Your task to perform on an android device: Go to settings Image 0: 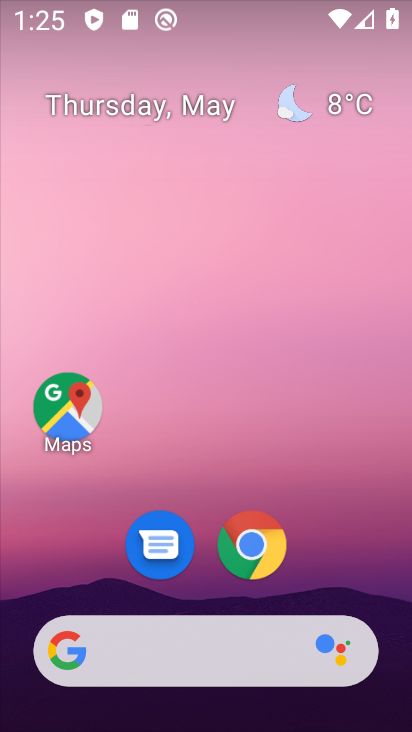
Step 0: drag from (382, 630) to (296, 159)
Your task to perform on an android device: Go to settings Image 1: 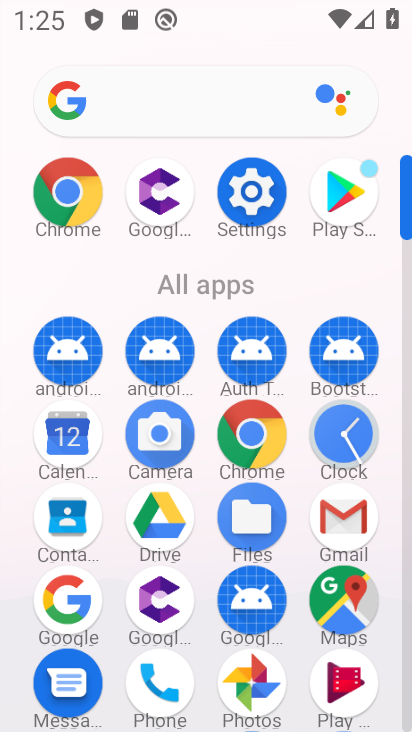
Step 1: click (406, 711)
Your task to perform on an android device: Go to settings Image 2: 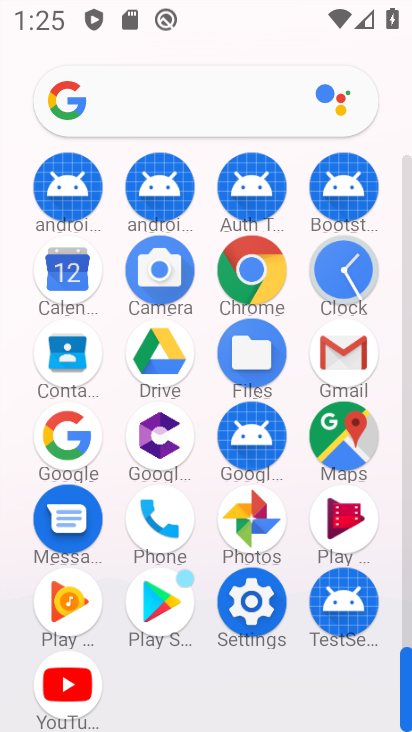
Step 2: click (251, 600)
Your task to perform on an android device: Go to settings Image 3: 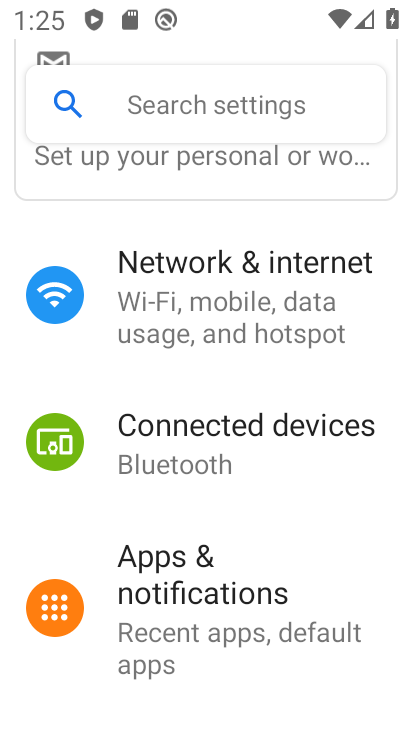
Step 3: drag from (389, 658) to (338, 127)
Your task to perform on an android device: Go to settings Image 4: 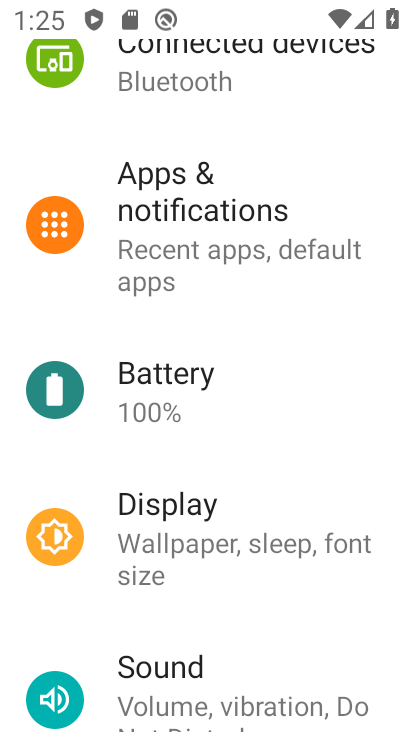
Step 4: click (338, 127)
Your task to perform on an android device: Go to settings Image 5: 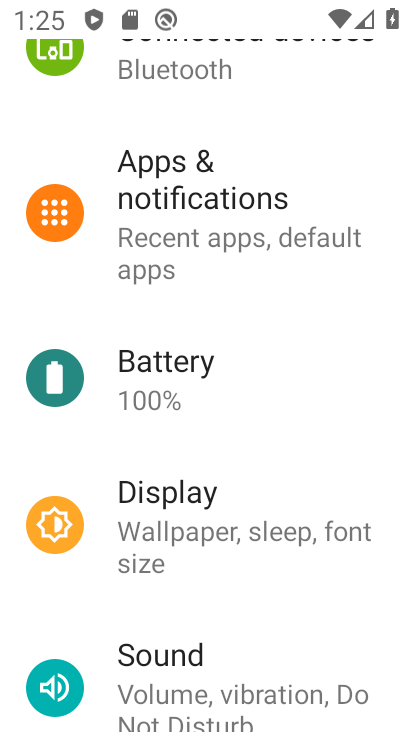
Step 5: click (338, 127)
Your task to perform on an android device: Go to settings Image 6: 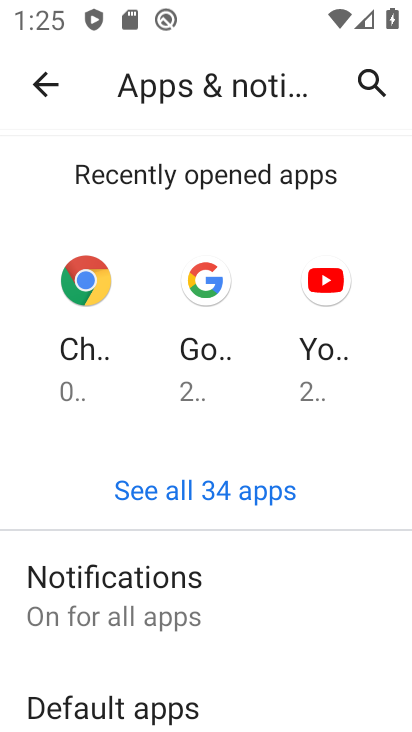
Step 6: task complete